Your task to perform on an android device: Go to sound settings Image 0: 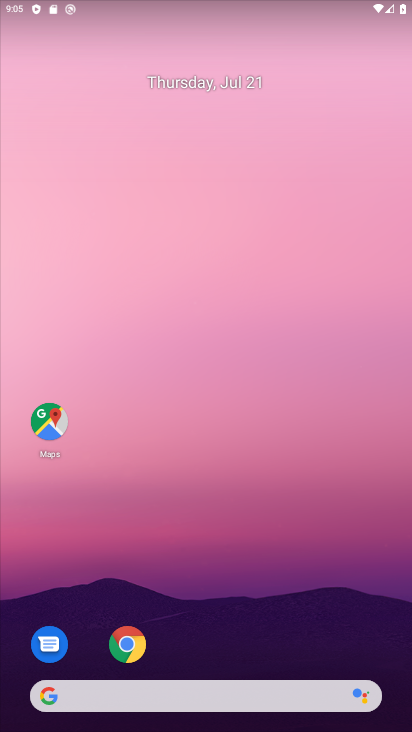
Step 0: drag from (269, 493) to (246, 0)
Your task to perform on an android device: Go to sound settings Image 1: 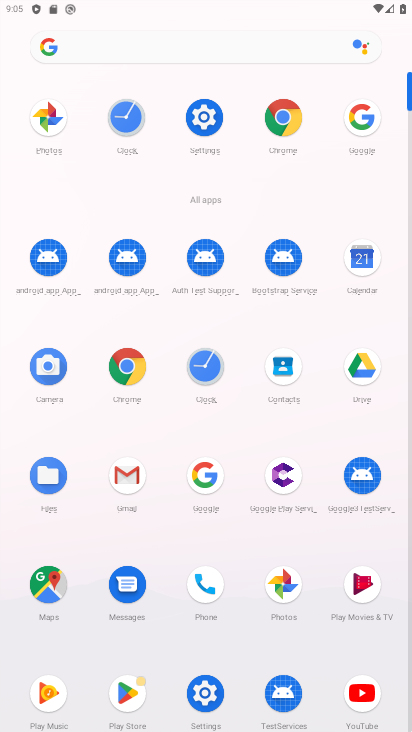
Step 1: click (218, 106)
Your task to perform on an android device: Go to sound settings Image 2: 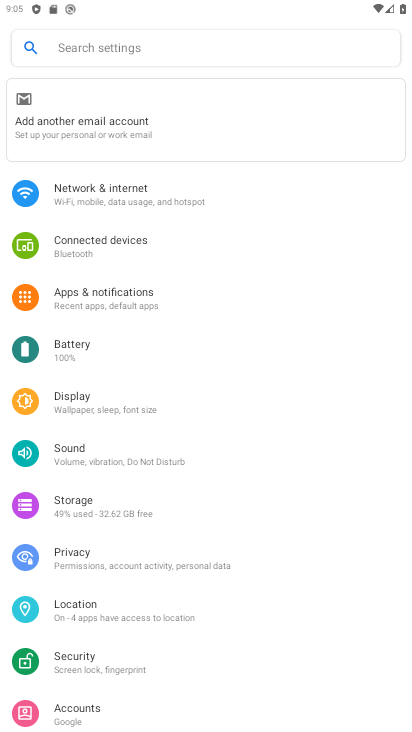
Step 2: click (91, 456)
Your task to perform on an android device: Go to sound settings Image 3: 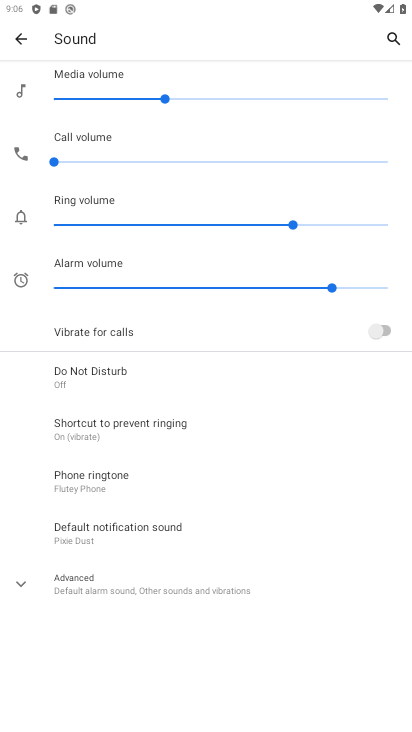
Step 3: task complete